Your task to perform on an android device: open app "Facebook Lite" Image 0: 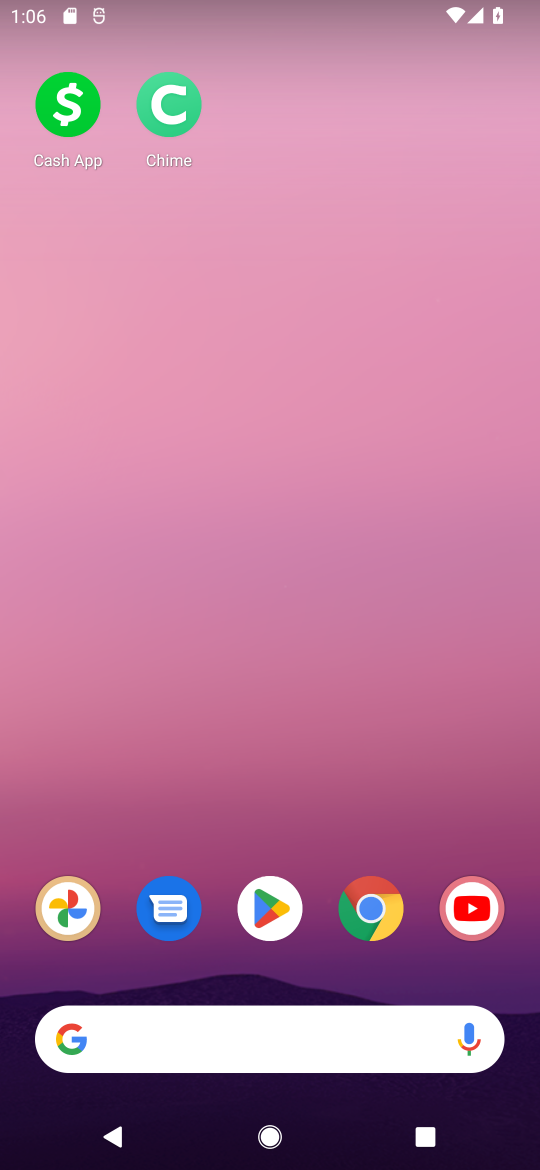
Step 0: click (277, 897)
Your task to perform on an android device: open app "Facebook Lite" Image 1: 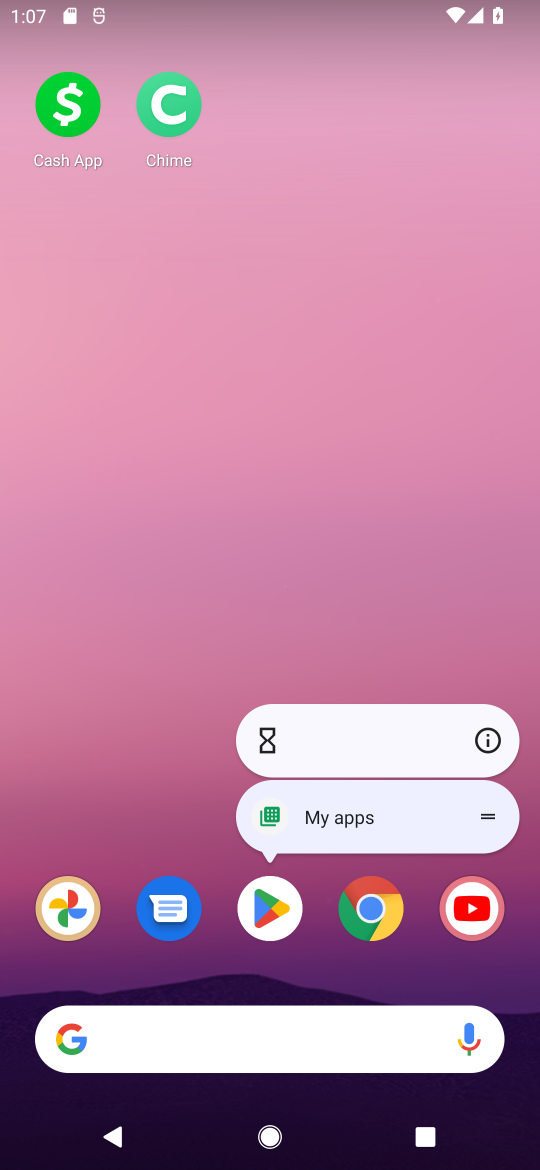
Step 1: click (264, 917)
Your task to perform on an android device: open app "Facebook Lite" Image 2: 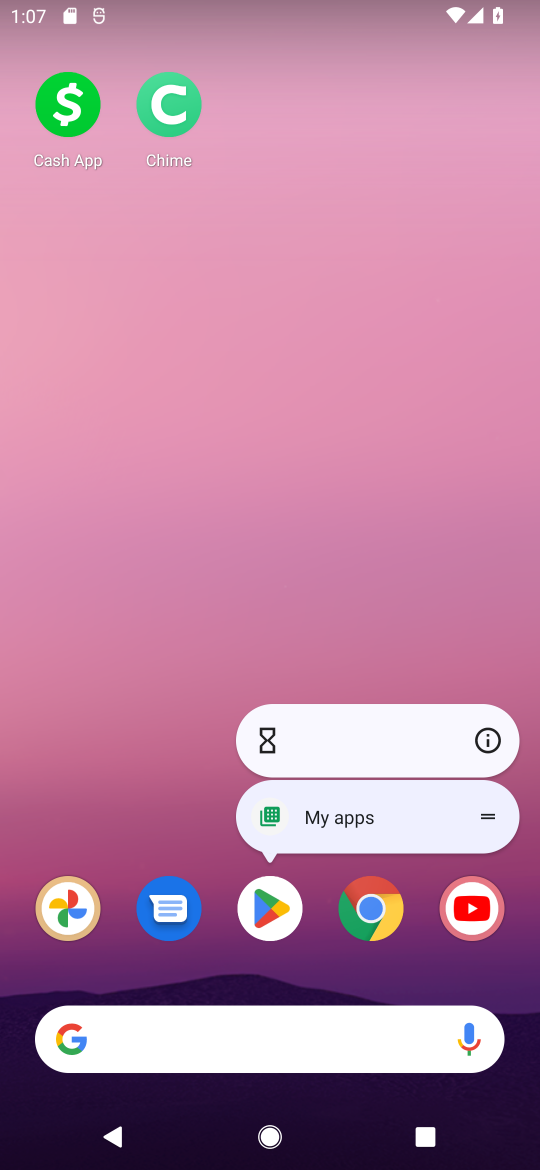
Step 2: click (266, 904)
Your task to perform on an android device: open app "Facebook Lite" Image 3: 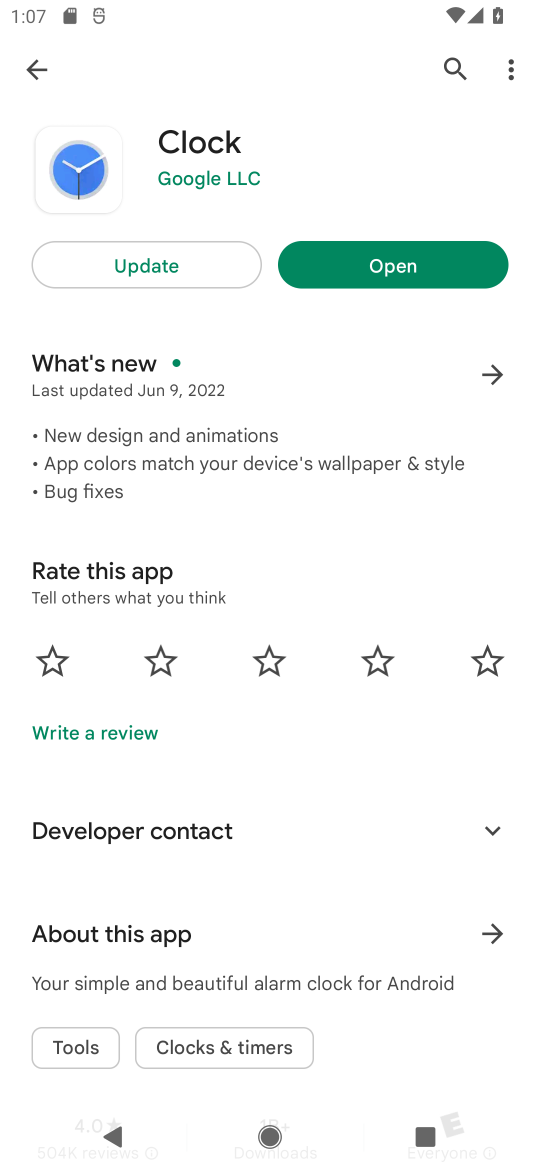
Step 3: click (451, 69)
Your task to perform on an android device: open app "Facebook Lite" Image 4: 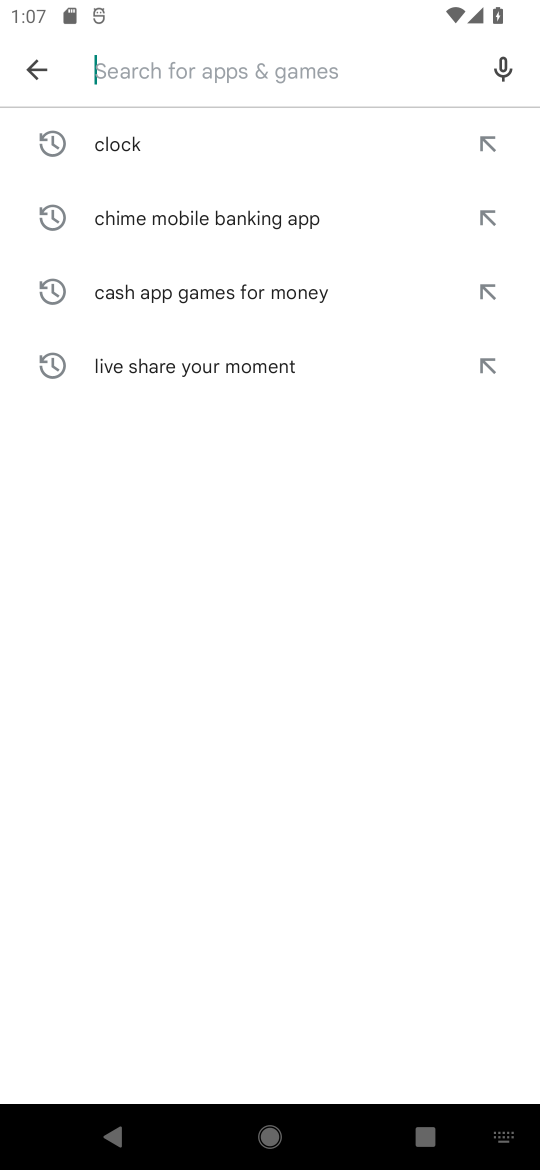
Step 4: type "facebooklite "
Your task to perform on an android device: open app "Facebook Lite" Image 5: 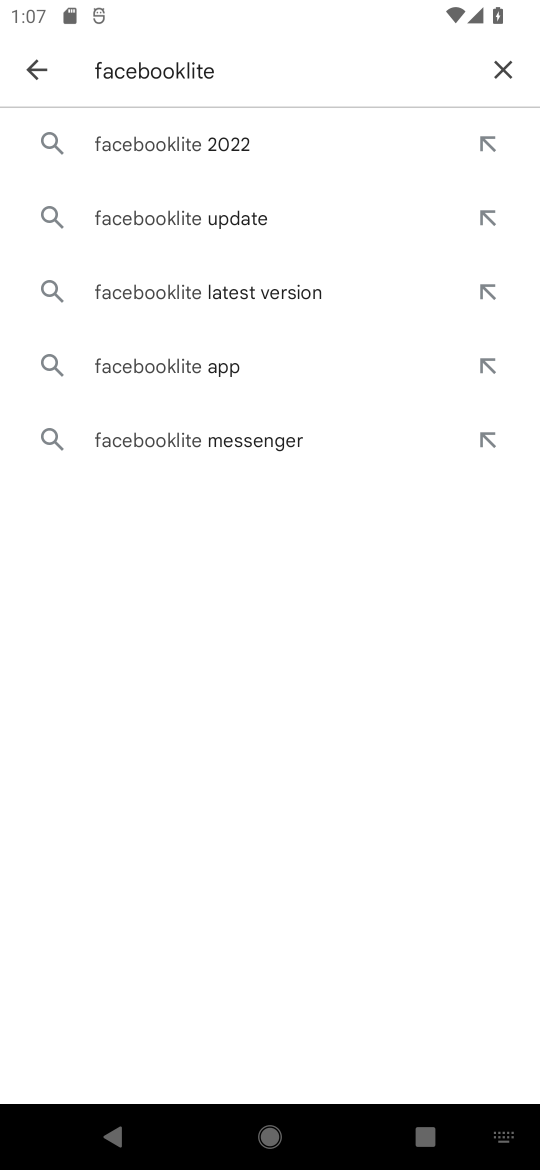
Step 5: press enter
Your task to perform on an android device: open app "Facebook Lite" Image 6: 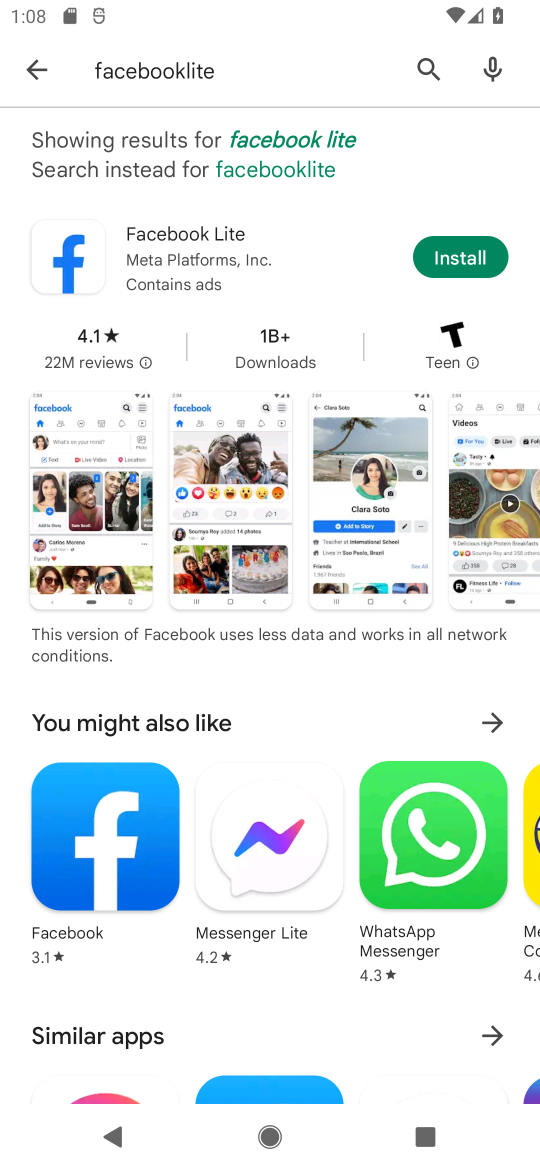
Step 6: task complete